Your task to perform on an android device: Open calendar and show me the fourth week of next month Image 0: 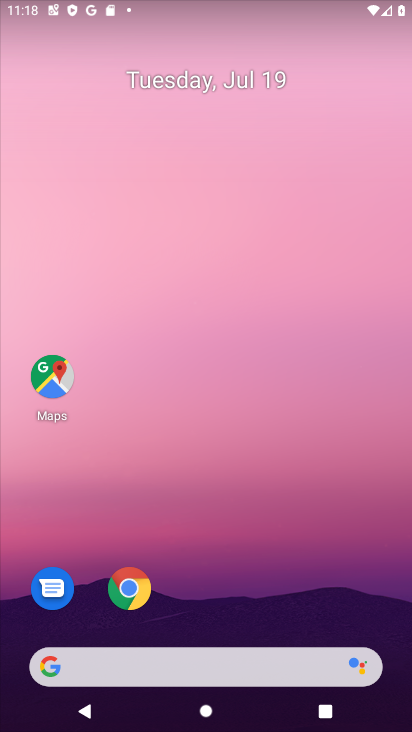
Step 0: drag from (252, 721) to (252, 281)
Your task to perform on an android device: Open calendar and show me the fourth week of next month Image 1: 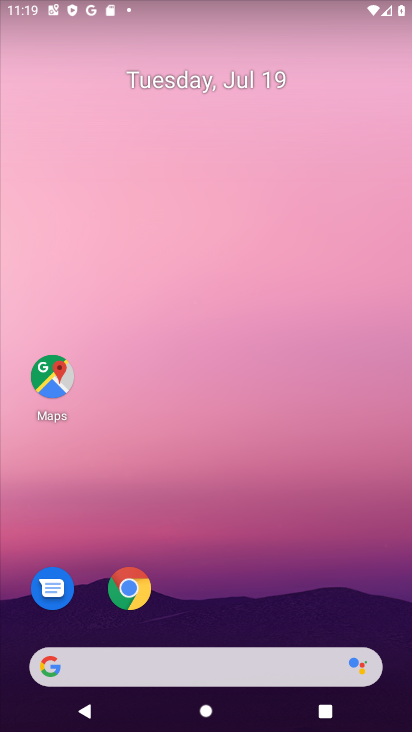
Step 1: drag from (239, 720) to (261, 202)
Your task to perform on an android device: Open calendar and show me the fourth week of next month Image 2: 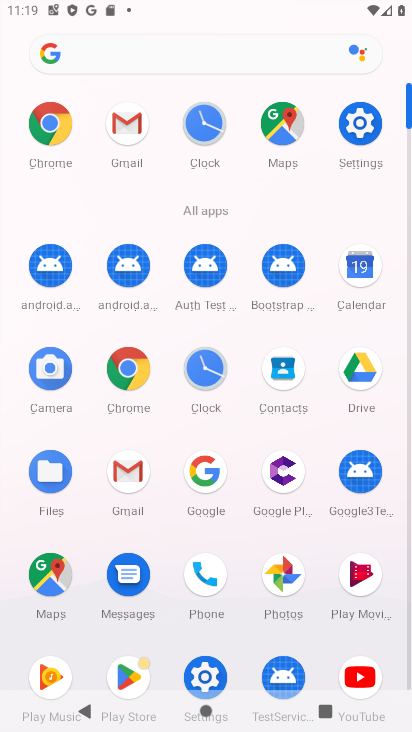
Step 2: click (363, 266)
Your task to perform on an android device: Open calendar and show me the fourth week of next month Image 3: 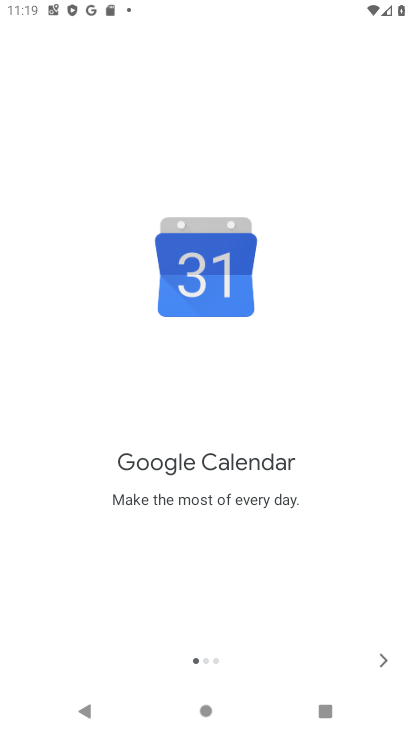
Step 3: click (378, 658)
Your task to perform on an android device: Open calendar and show me the fourth week of next month Image 4: 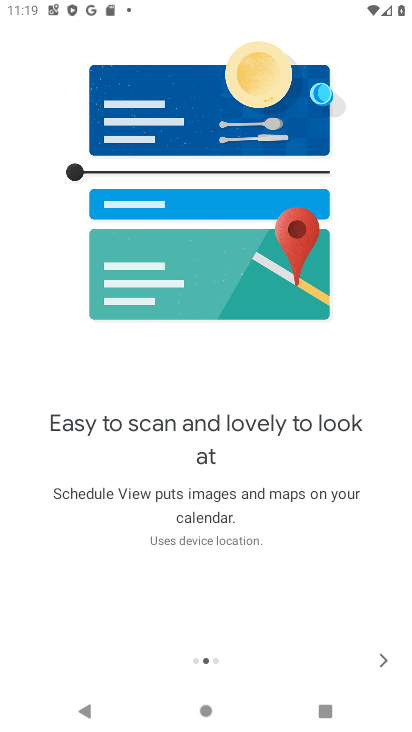
Step 4: click (394, 652)
Your task to perform on an android device: Open calendar and show me the fourth week of next month Image 5: 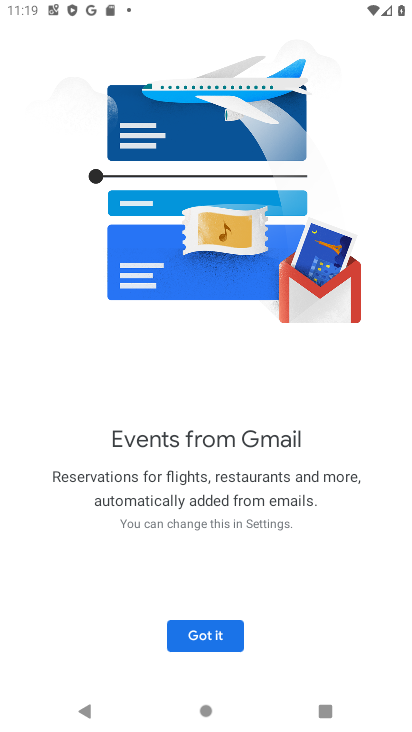
Step 5: click (208, 635)
Your task to perform on an android device: Open calendar and show me the fourth week of next month Image 6: 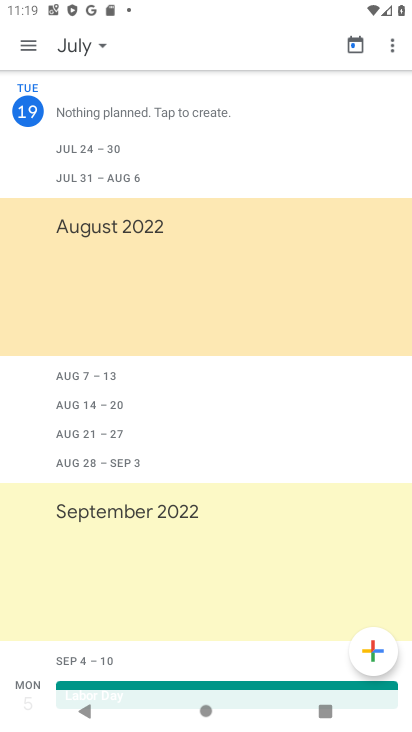
Step 6: click (103, 47)
Your task to perform on an android device: Open calendar and show me the fourth week of next month Image 7: 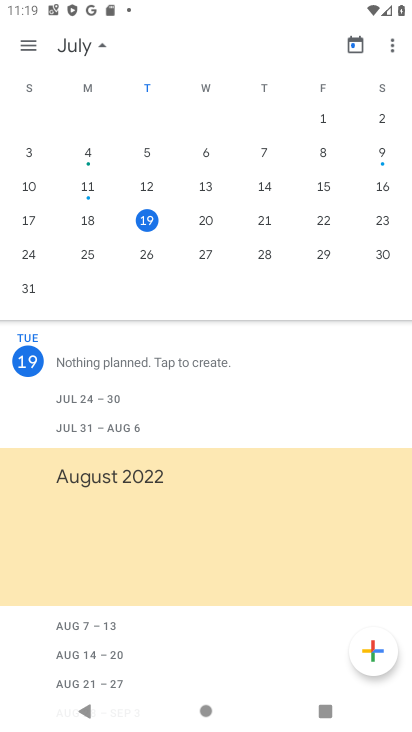
Step 7: drag from (219, 190) to (1, 213)
Your task to perform on an android device: Open calendar and show me the fourth week of next month Image 8: 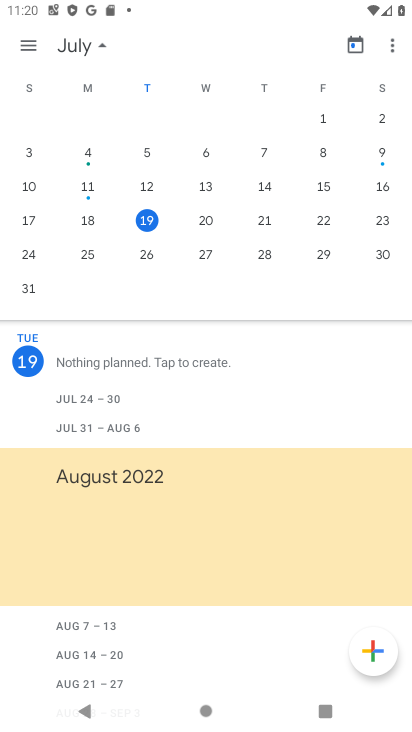
Step 8: drag from (331, 180) to (37, 174)
Your task to perform on an android device: Open calendar and show me the fourth week of next month Image 9: 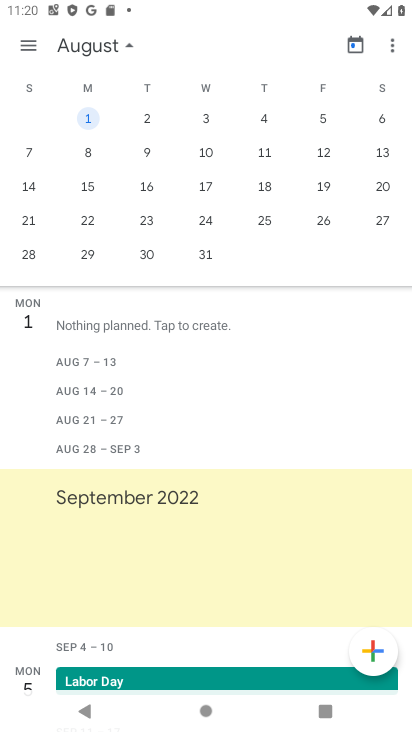
Step 9: click (88, 217)
Your task to perform on an android device: Open calendar and show me the fourth week of next month Image 10: 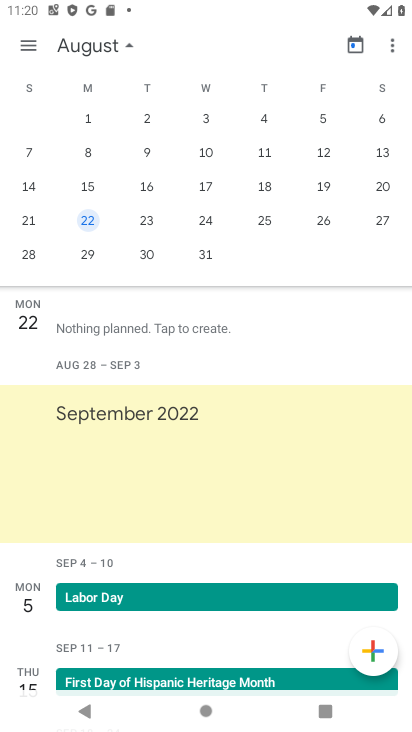
Step 10: click (28, 45)
Your task to perform on an android device: Open calendar and show me the fourth week of next month Image 11: 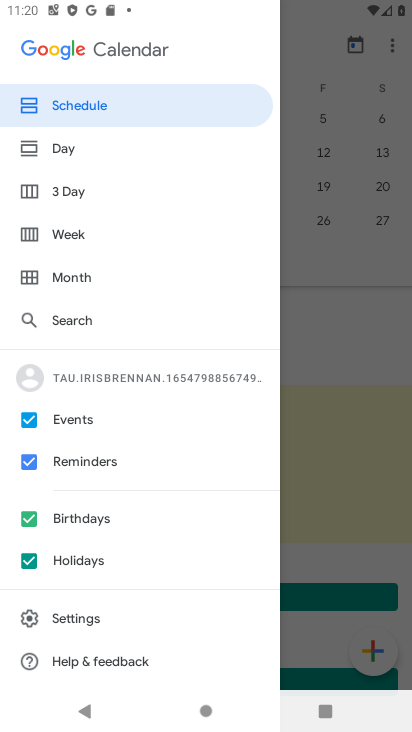
Step 11: click (74, 234)
Your task to perform on an android device: Open calendar and show me the fourth week of next month Image 12: 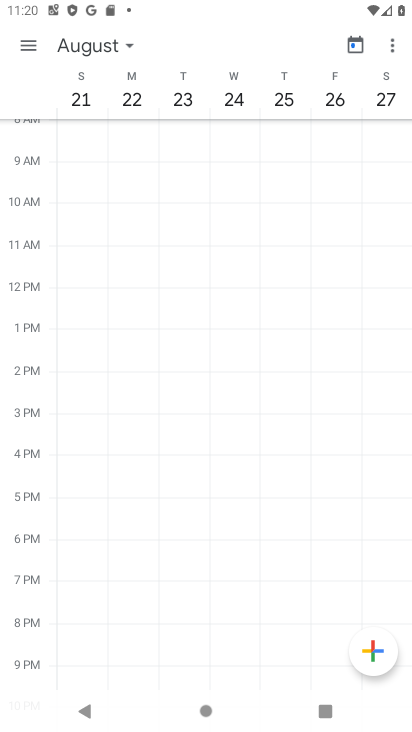
Step 12: task complete